Your task to perform on an android device: Open settings Image 0: 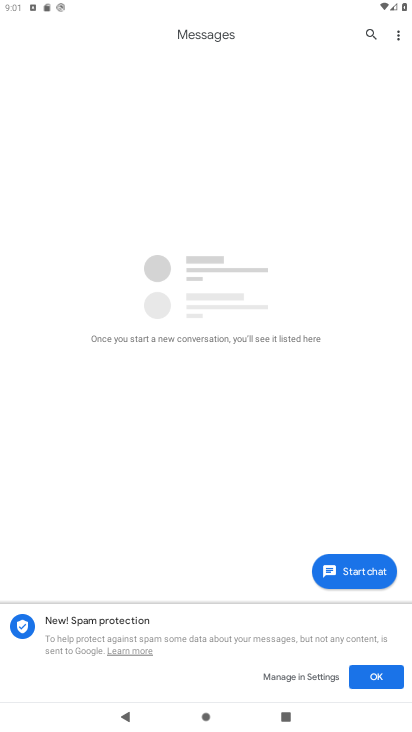
Step 0: press home button
Your task to perform on an android device: Open settings Image 1: 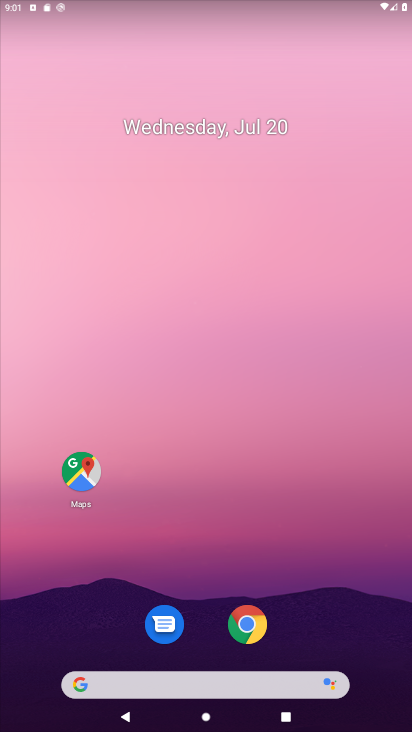
Step 1: drag from (211, 570) to (217, 76)
Your task to perform on an android device: Open settings Image 2: 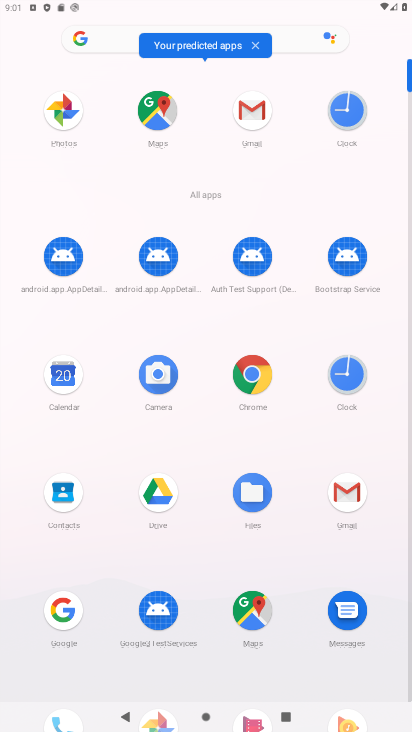
Step 2: drag from (111, 597) to (139, 152)
Your task to perform on an android device: Open settings Image 3: 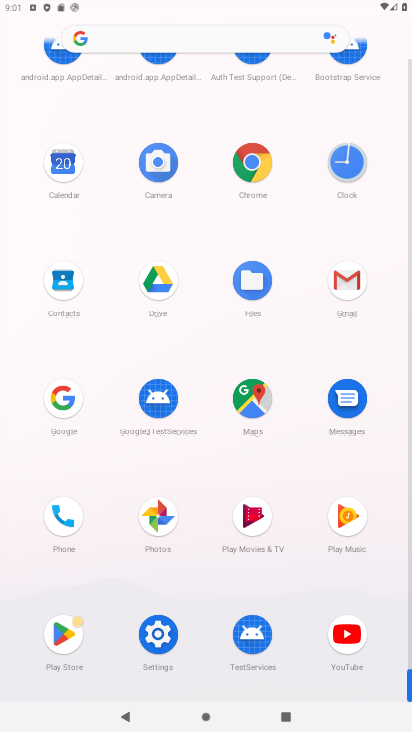
Step 3: click (151, 631)
Your task to perform on an android device: Open settings Image 4: 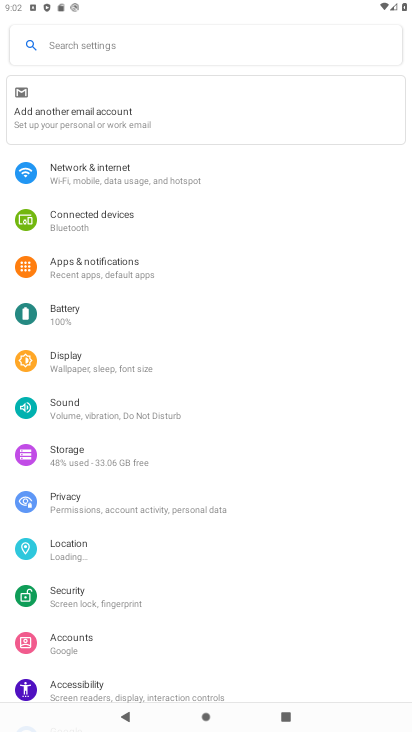
Step 4: task complete